Your task to perform on an android device: manage bookmarks in the chrome app Image 0: 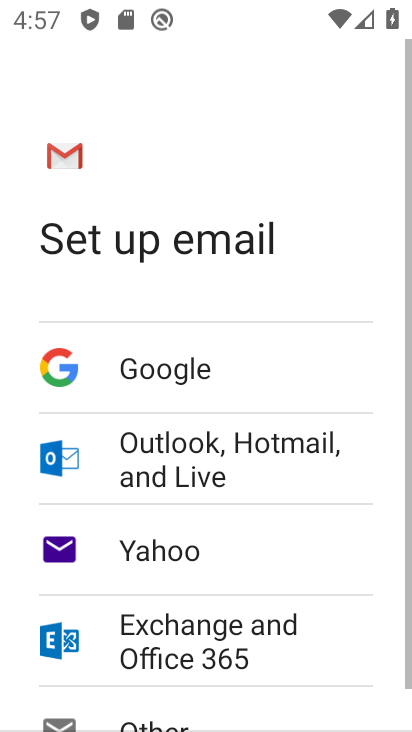
Step 0: press home button
Your task to perform on an android device: manage bookmarks in the chrome app Image 1: 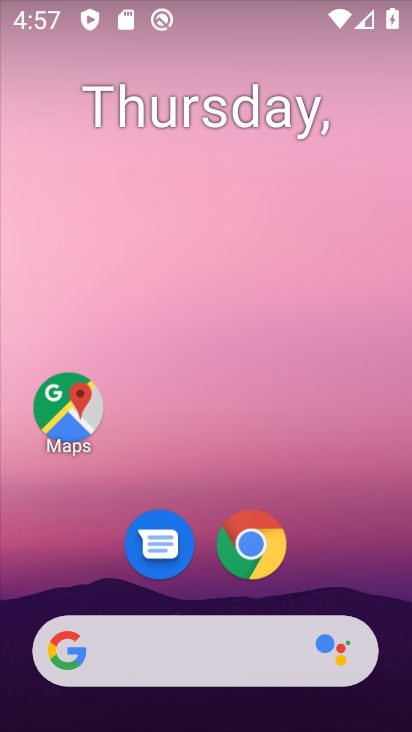
Step 1: click (239, 540)
Your task to perform on an android device: manage bookmarks in the chrome app Image 2: 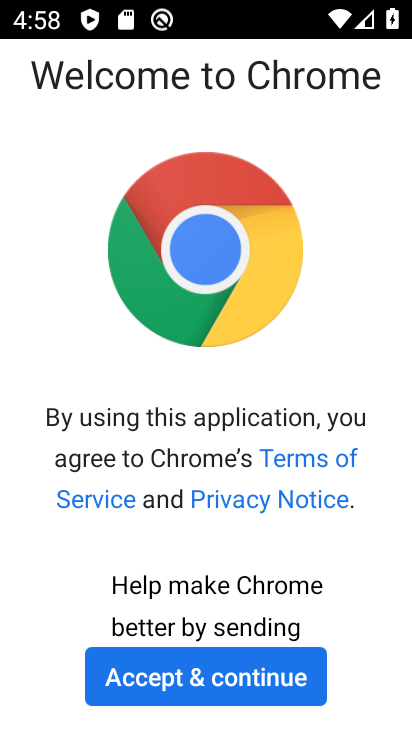
Step 2: click (235, 656)
Your task to perform on an android device: manage bookmarks in the chrome app Image 3: 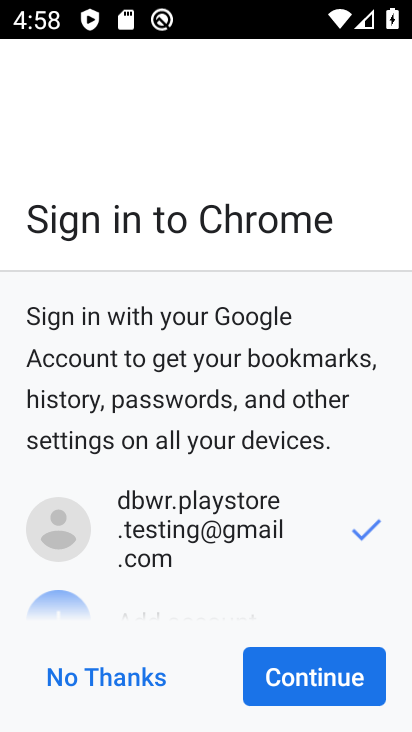
Step 3: click (274, 663)
Your task to perform on an android device: manage bookmarks in the chrome app Image 4: 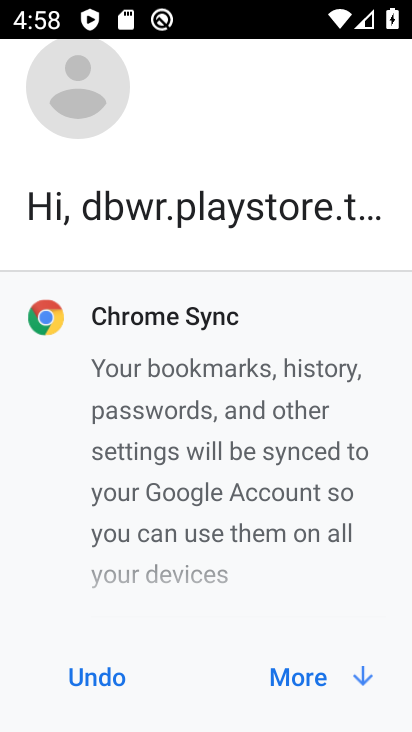
Step 4: click (354, 666)
Your task to perform on an android device: manage bookmarks in the chrome app Image 5: 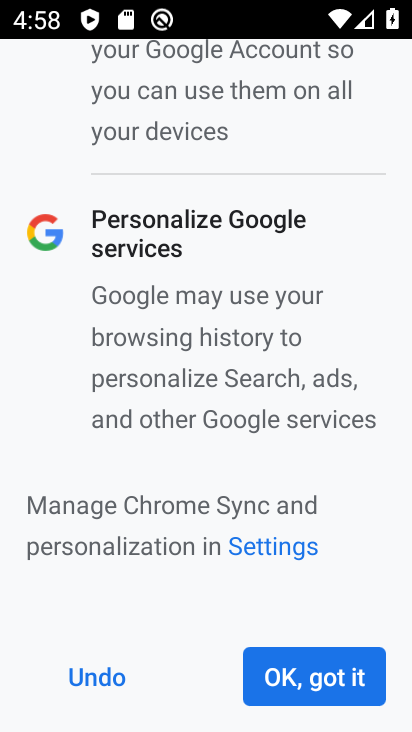
Step 5: click (351, 665)
Your task to perform on an android device: manage bookmarks in the chrome app Image 6: 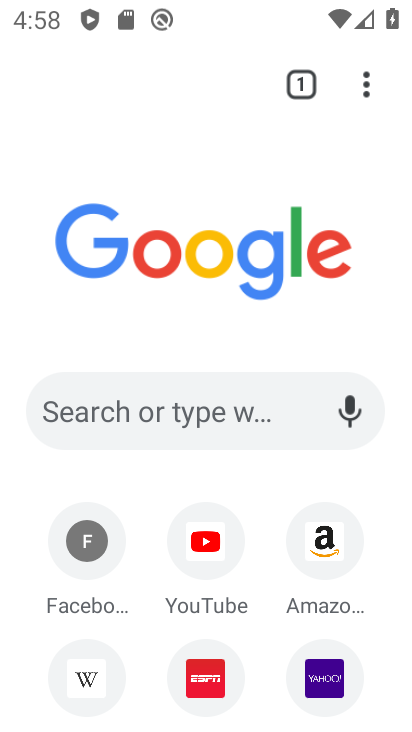
Step 6: task complete